Your task to perform on an android device: Go to location settings Image 0: 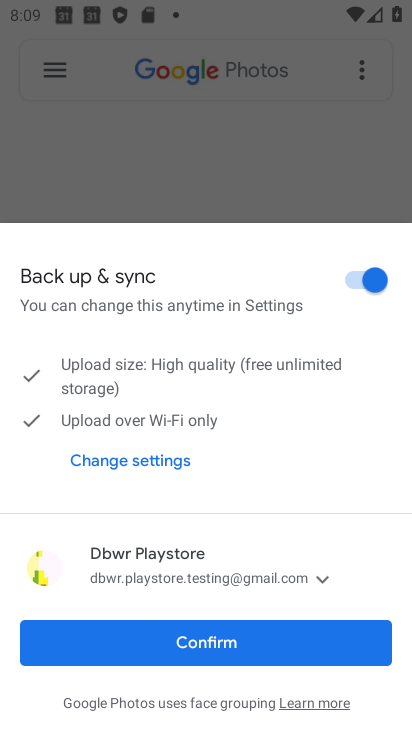
Step 0: press home button
Your task to perform on an android device: Go to location settings Image 1: 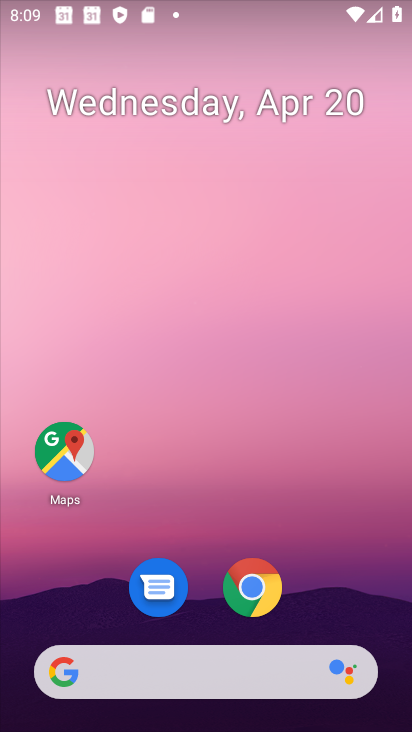
Step 1: drag from (346, 590) to (347, 171)
Your task to perform on an android device: Go to location settings Image 2: 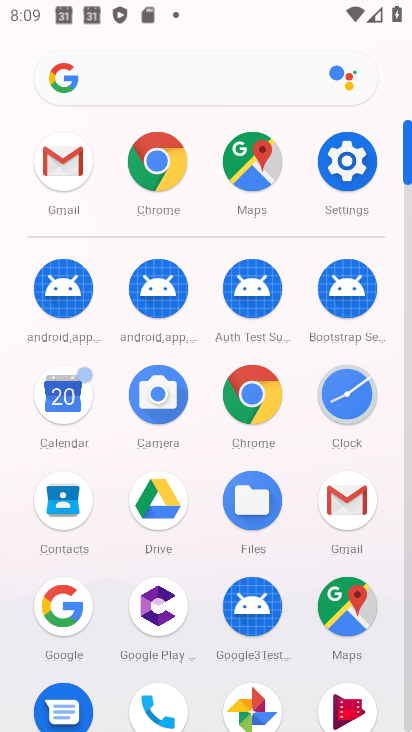
Step 2: click (361, 182)
Your task to perform on an android device: Go to location settings Image 3: 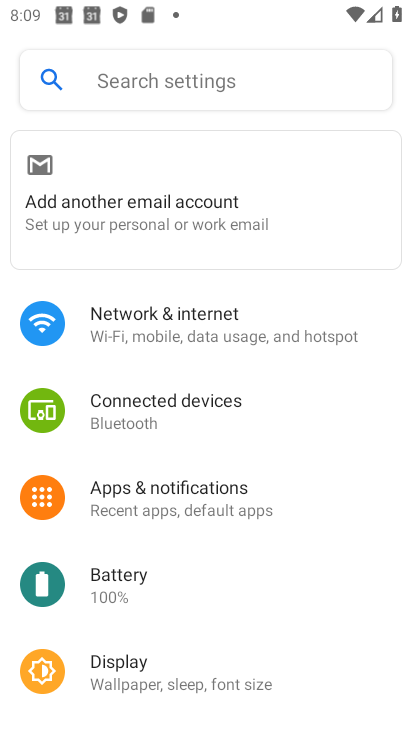
Step 3: drag from (349, 524) to (365, 376)
Your task to perform on an android device: Go to location settings Image 4: 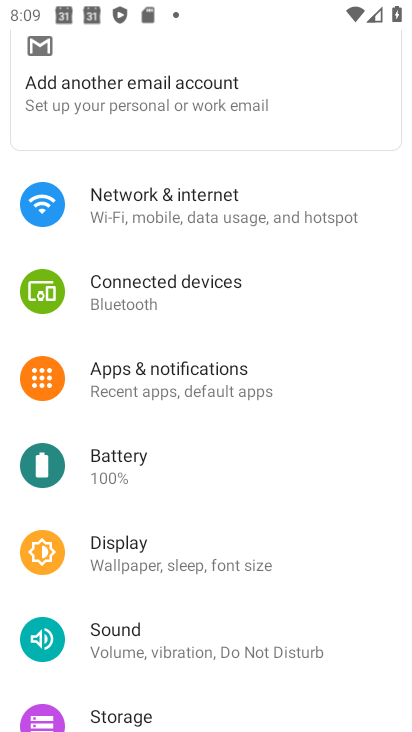
Step 4: drag from (369, 544) to (355, 400)
Your task to perform on an android device: Go to location settings Image 5: 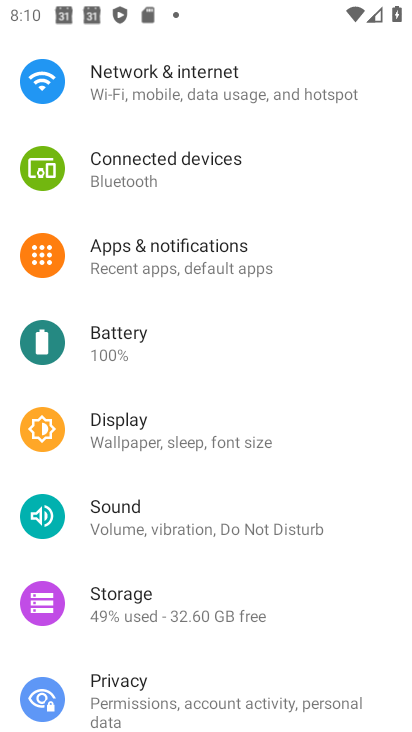
Step 5: drag from (367, 560) to (345, 382)
Your task to perform on an android device: Go to location settings Image 6: 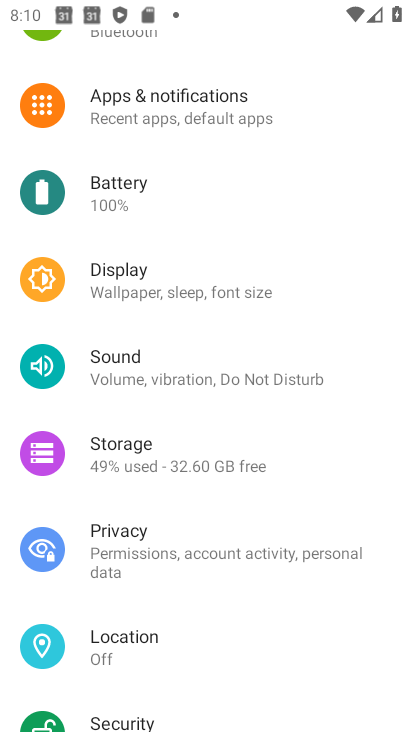
Step 6: drag from (340, 624) to (340, 418)
Your task to perform on an android device: Go to location settings Image 7: 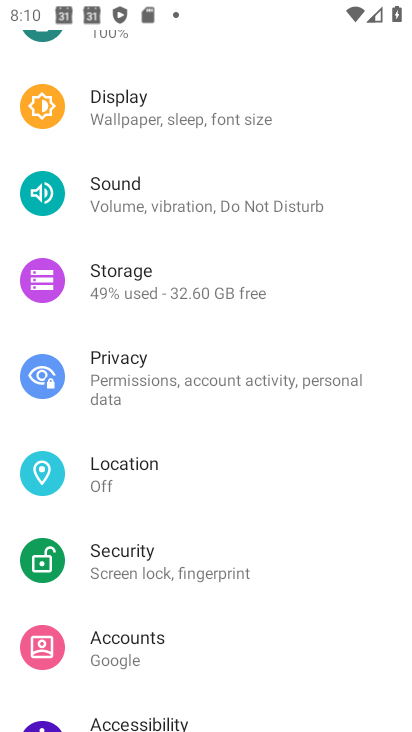
Step 7: drag from (355, 563) to (353, 433)
Your task to perform on an android device: Go to location settings Image 8: 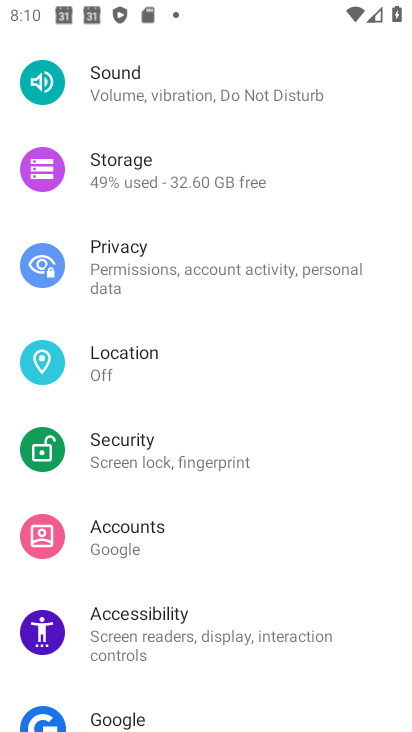
Step 8: click (122, 358)
Your task to perform on an android device: Go to location settings Image 9: 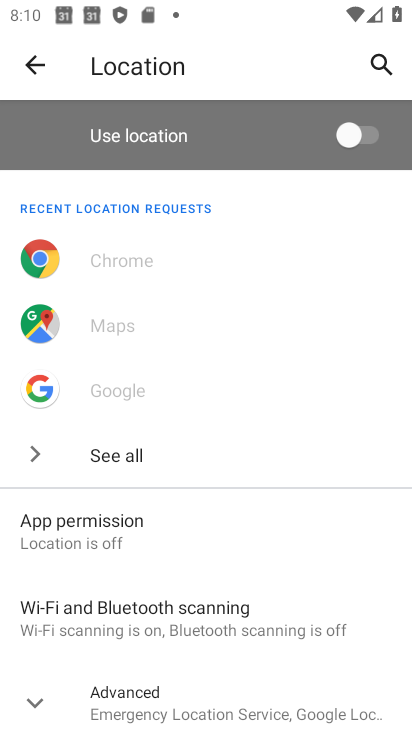
Step 9: task complete